Your task to perform on an android device: Open Chrome and go to the settings page Image 0: 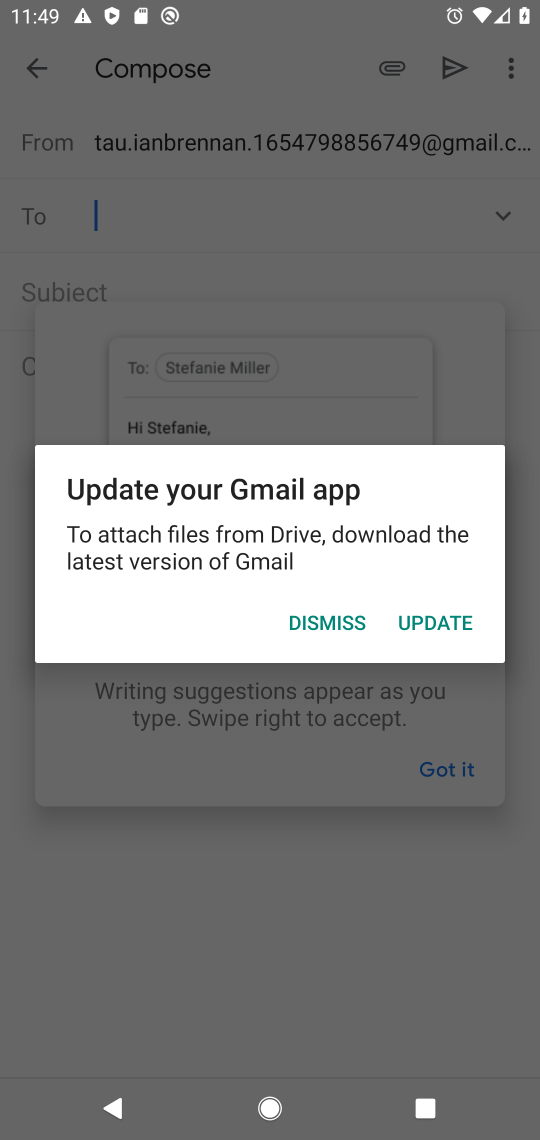
Step 0: press home button
Your task to perform on an android device: Open Chrome and go to the settings page Image 1: 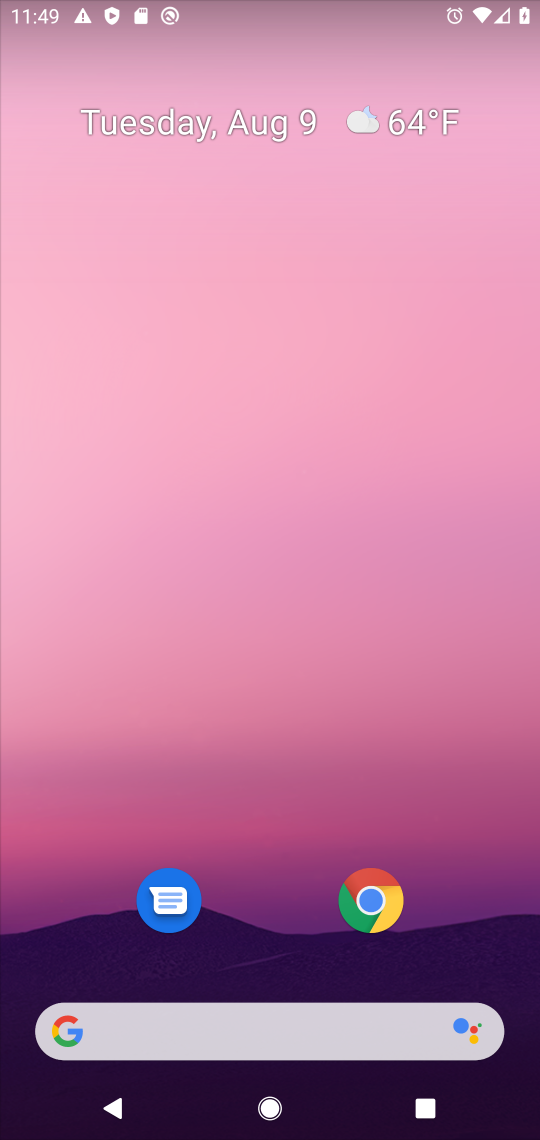
Step 1: click (363, 894)
Your task to perform on an android device: Open Chrome and go to the settings page Image 2: 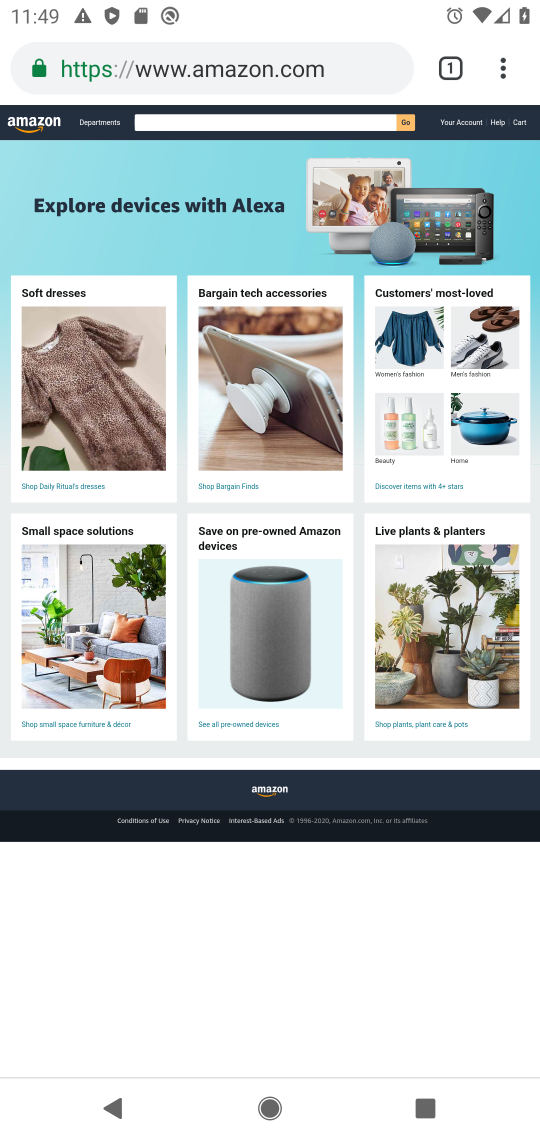
Step 2: click (507, 76)
Your task to perform on an android device: Open Chrome and go to the settings page Image 3: 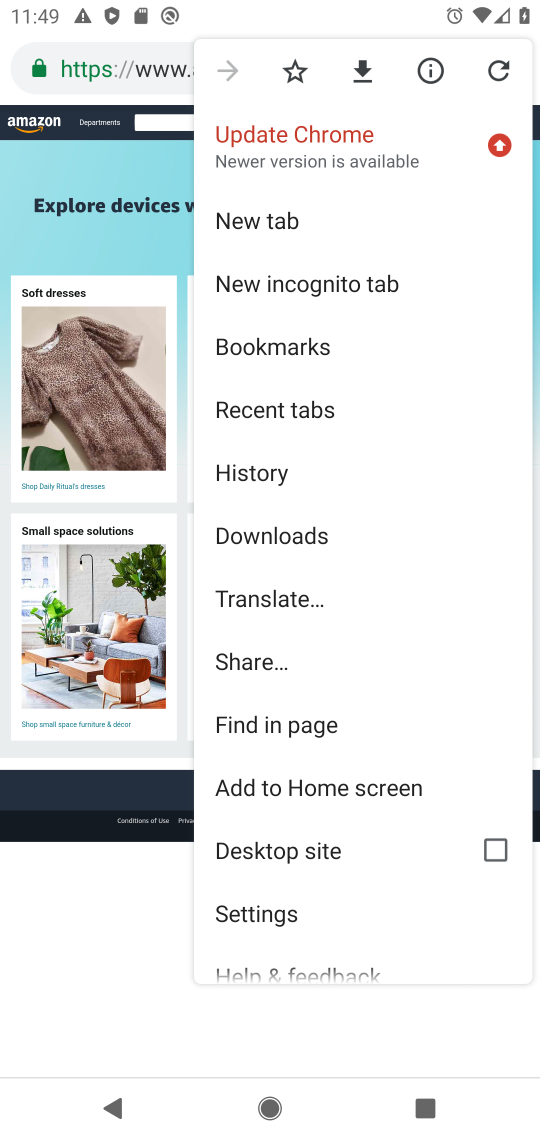
Step 3: click (312, 911)
Your task to perform on an android device: Open Chrome and go to the settings page Image 4: 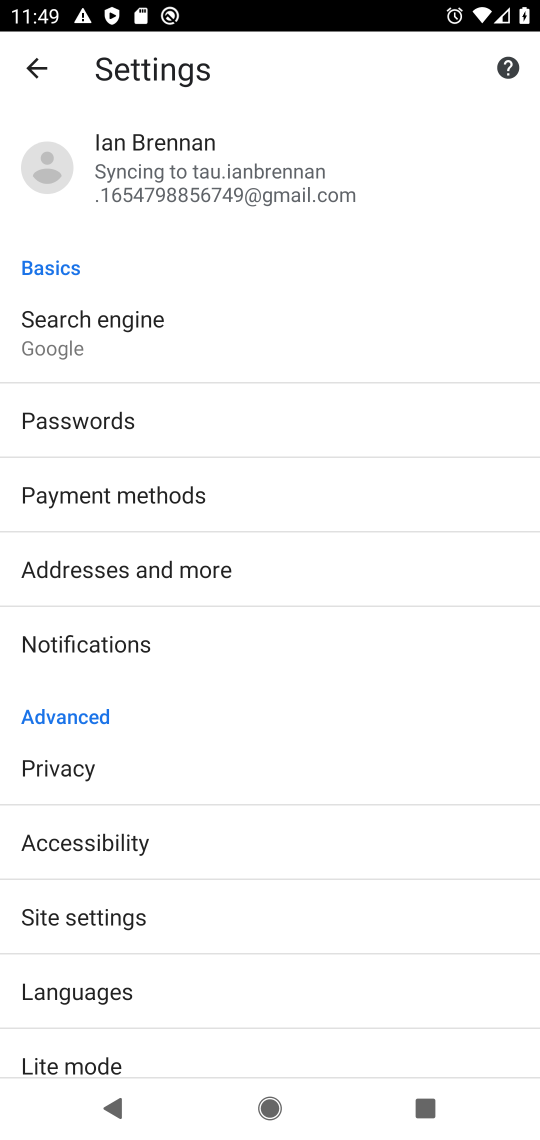
Step 4: task complete